Your task to perform on an android device: turn off data saver in the chrome app Image 0: 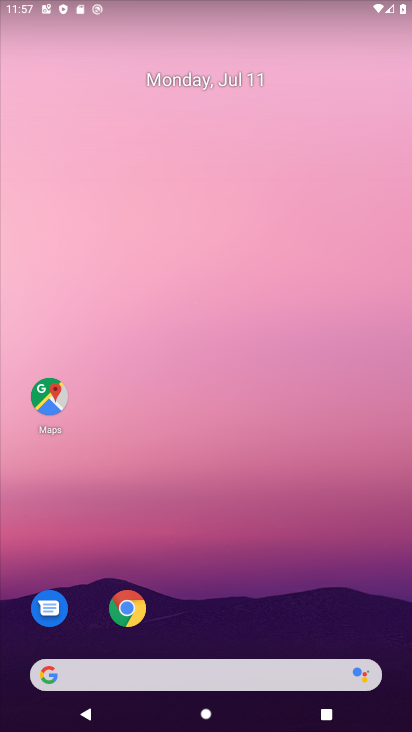
Step 0: click (125, 613)
Your task to perform on an android device: turn off data saver in the chrome app Image 1: 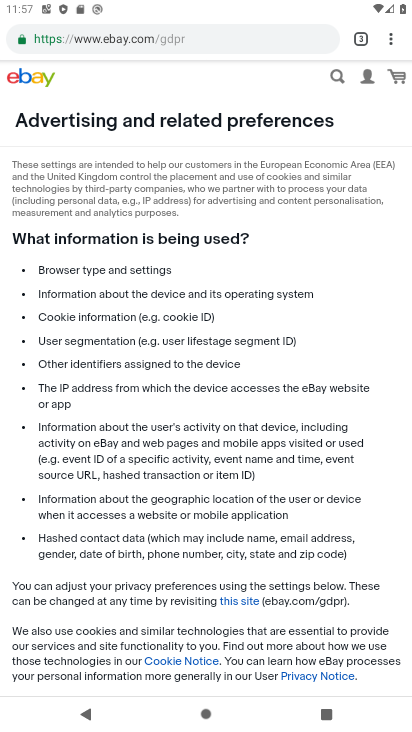
Step 1: click (395, 48)
Your task to perform on an android device: turn off data saver in the chrome app Image 2: 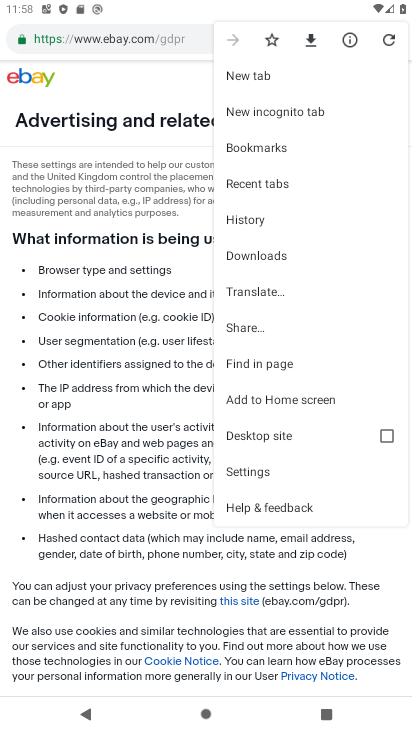
Step 2: click (262, 472)
Your task to perform on an android device: turn off data saver in the chrome app Image 3: 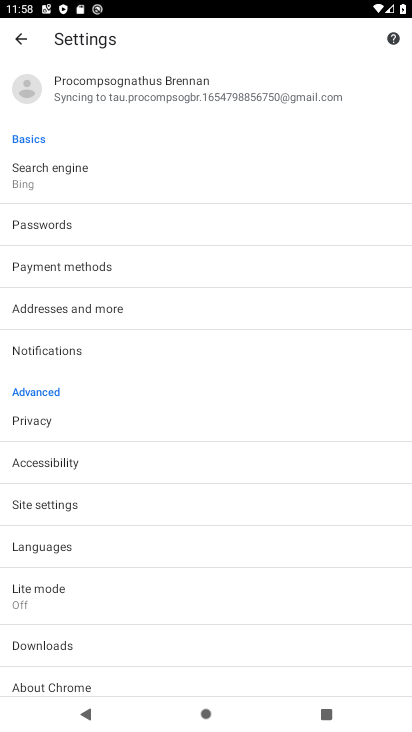
Step 3: click (46, 610)
Your task to perform on an android device: turn off data saver in the chrome app Image 4: 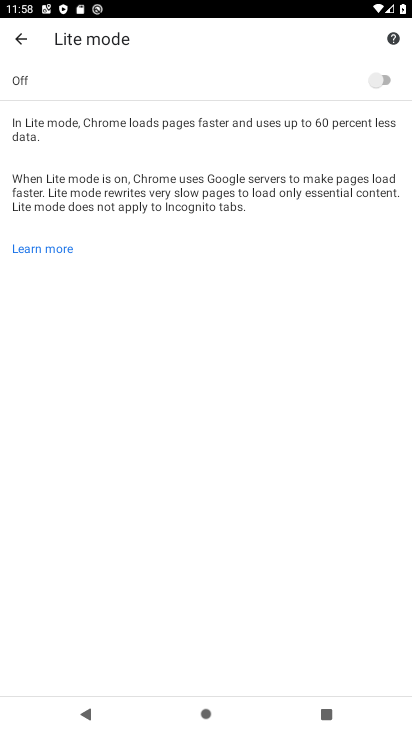
Step 4: task complete